Your task to perform on an android device: turn on showing notifications on the lock screen Image 0: 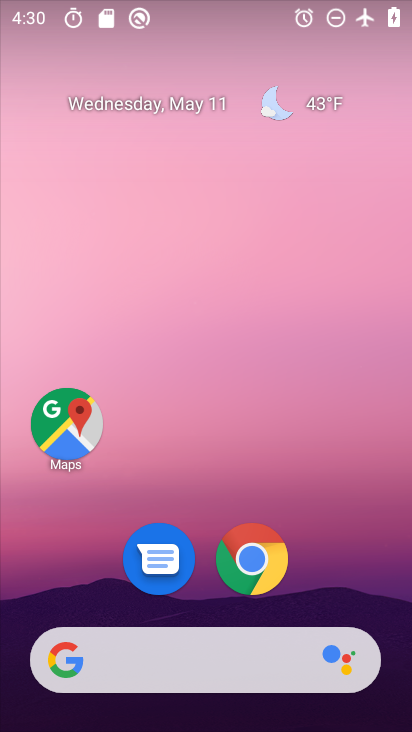
Step 0: drag from (342, 556) to (229, 60)
Your task to perform on an android device: turn on showing notifications on the lock screen Image 1: 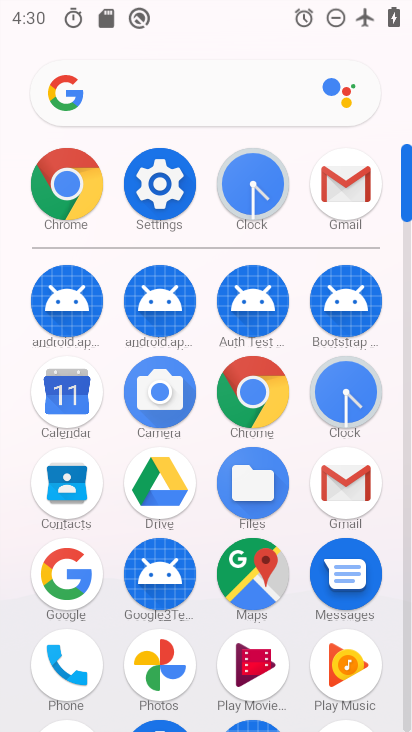
Step 1: click (171, 200)
Your task to perform on an android device: turn on showing notifications on the lock screen Image 2: 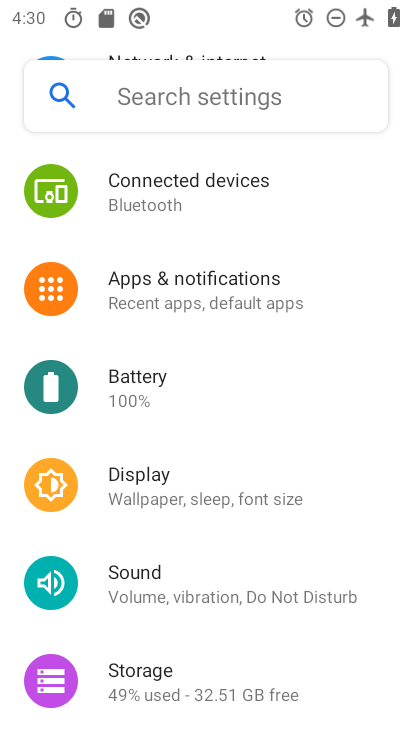
Step 2: click (218, 315)
Your task to perform on an android device: turn on showing notifications on the lock screen Image 3: 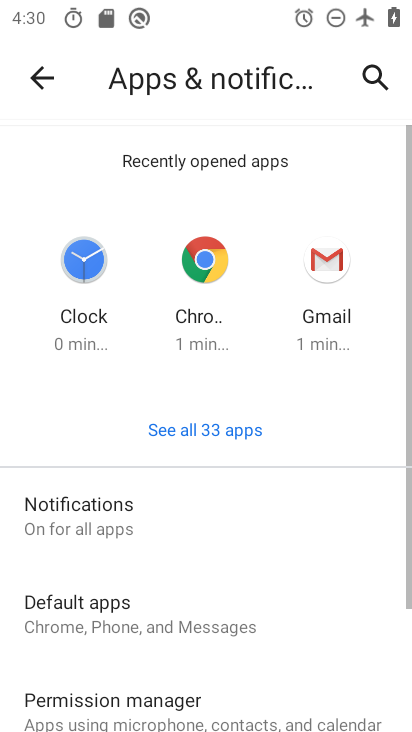
Step 3: click (123, 511)
Your task to perform on an android device: turn on showing notifications on the lock screen Image 4: 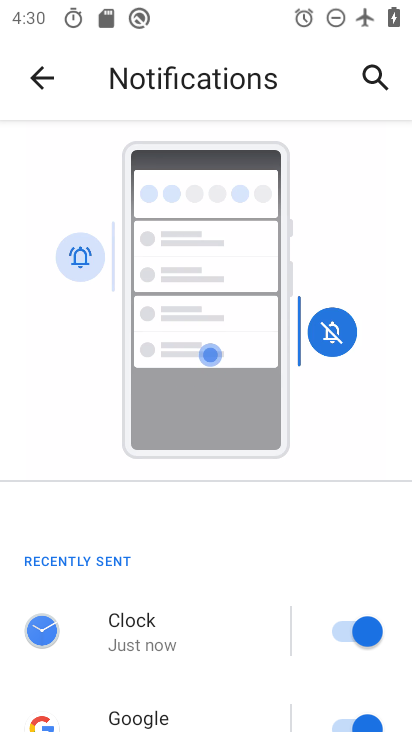
Step 4: drag from (230, 650) to (225, 151)
Your task to perform on an android device: turn on showing notifications on the lock screen Image 5: 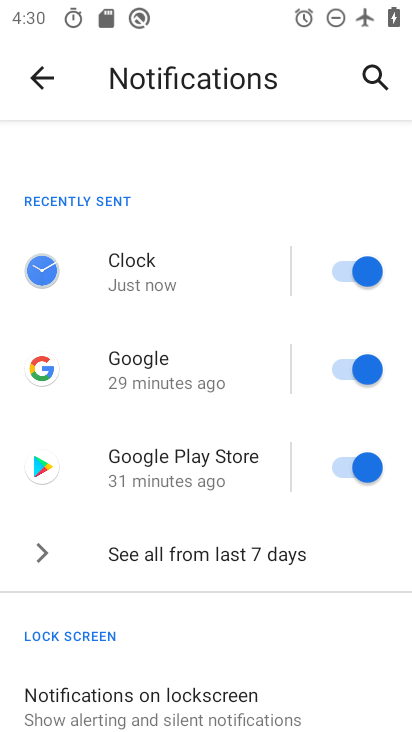
Step 5: click (224, 695)
Your task to perform on an android device: turn on showing notifications on the lock screen Image 6: 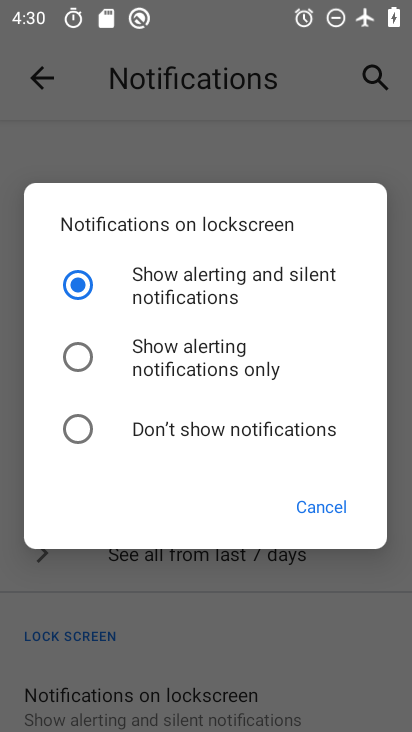
Step 6: task complete